Your task to perform on an android device: Add "razer thresher" to the cart on amazon.com Image 0: 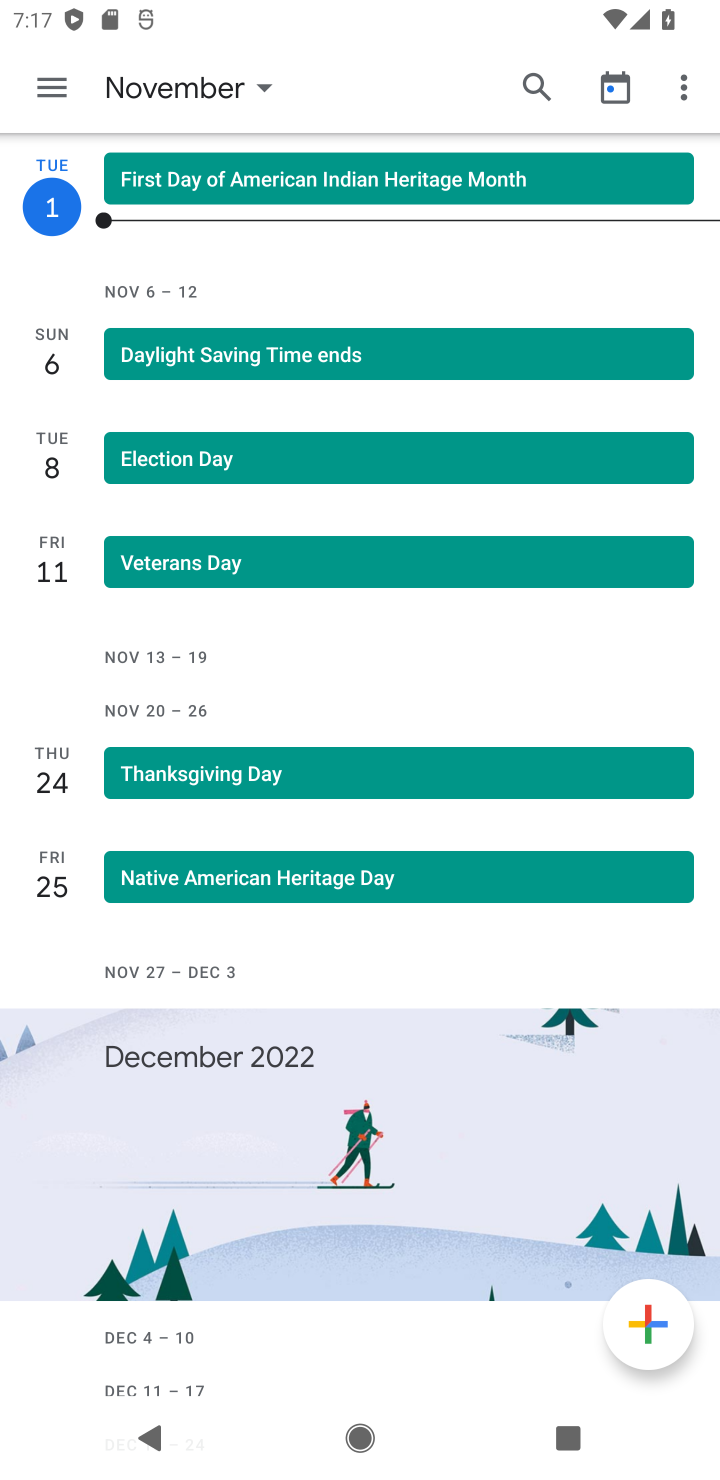
Step 0: press home button
Your task to perform on an android device: Add "razer thresher" to the cart on amazon.com Image 1: 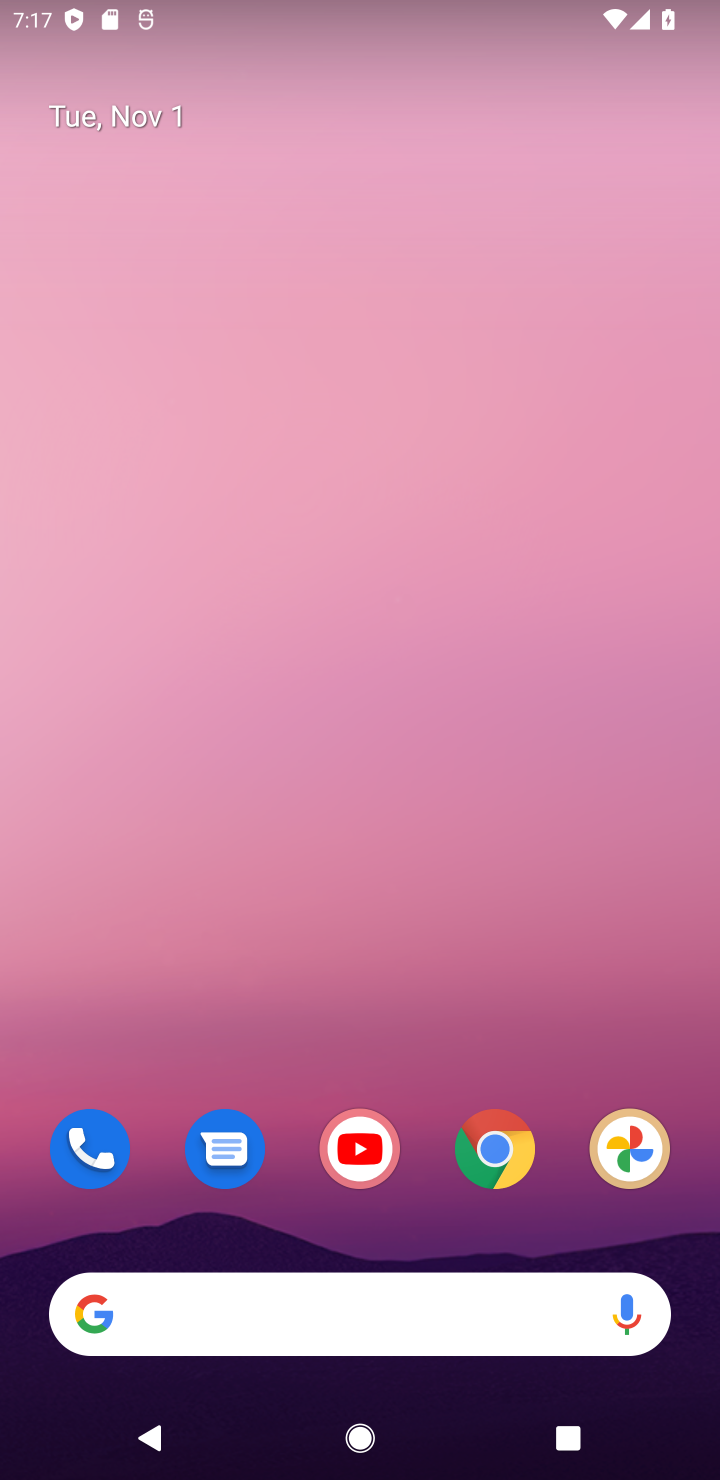
Step 1: drag from (404, 1252) to (525, 275)
Your task to perform on an android device: Add "razer thresher" to the cart on amazon.com Image 2: 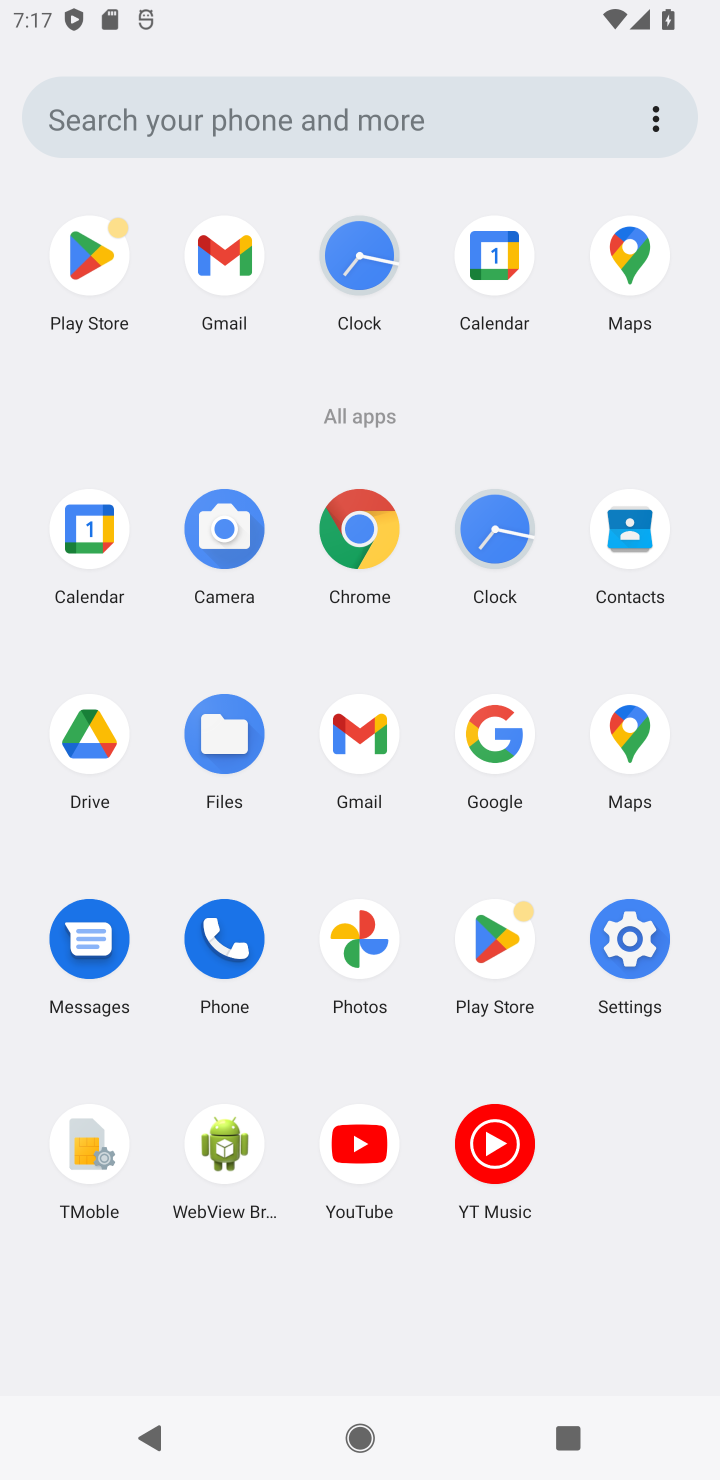
Step 2: click (354, 532)
Your task to perform on an android device: Add "razer thresher" to the cart on amazon.com Image 3: 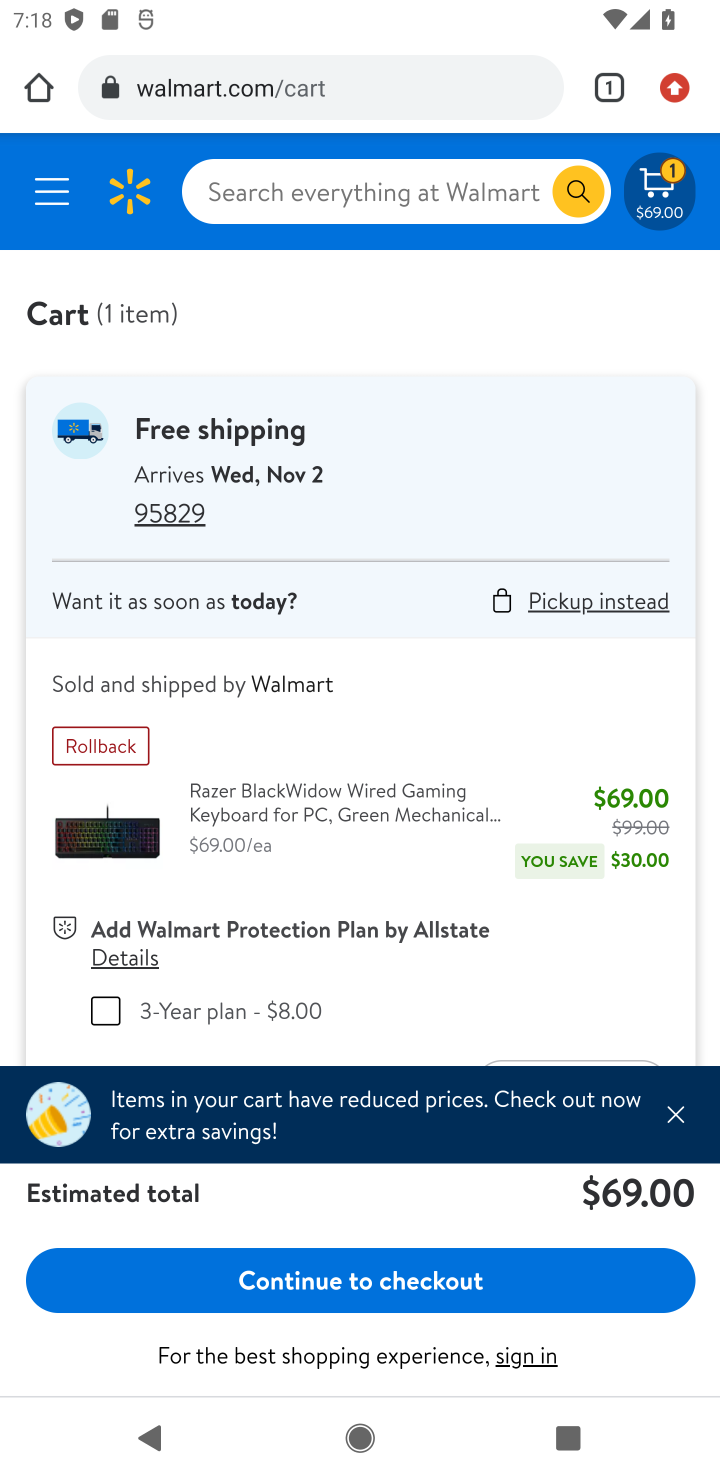
Step 3: click (504, 92)
Your task to perform on an android device: Add "razer thresher" to the cart on amazon.com Image 4: 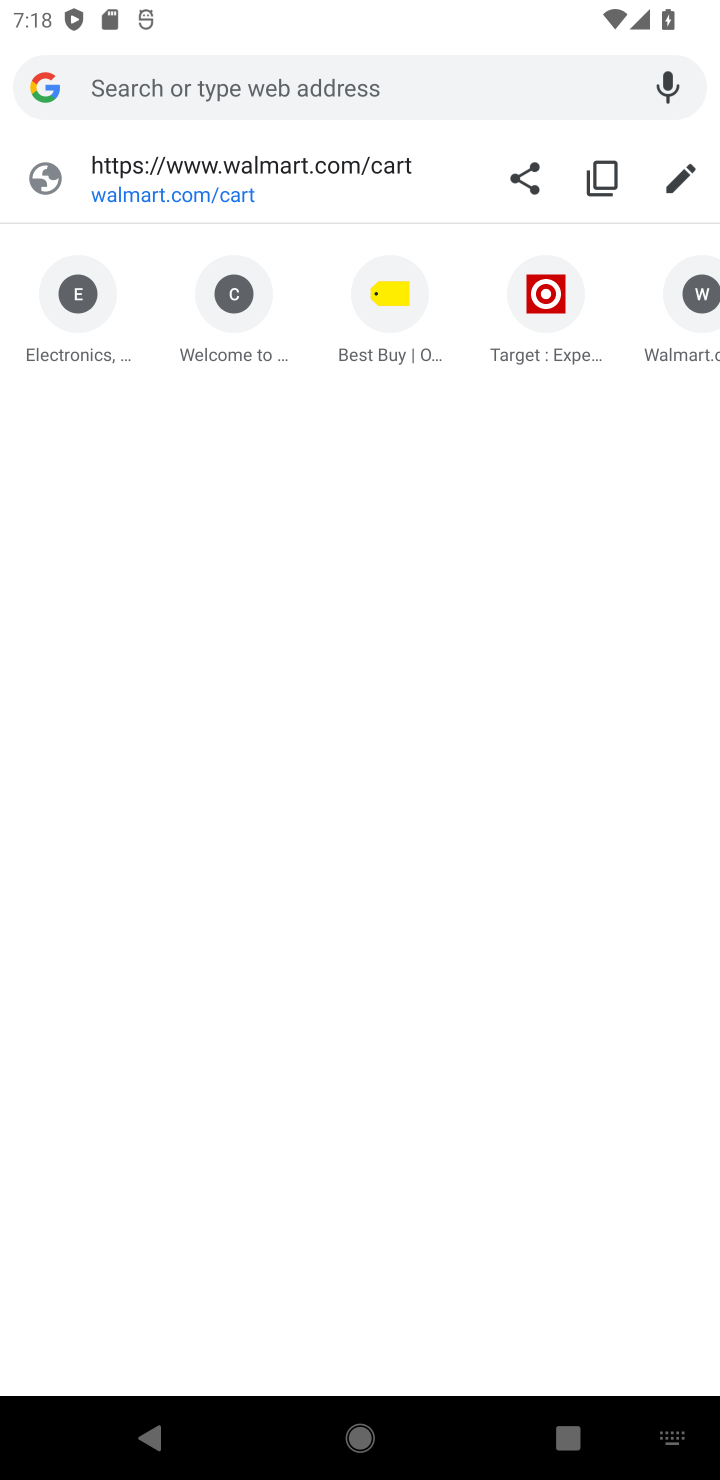
Step 4: type "amazon.com"
Your task to perform on an android device: Add "razer thresher" to the cart on amazon.com Image 5: 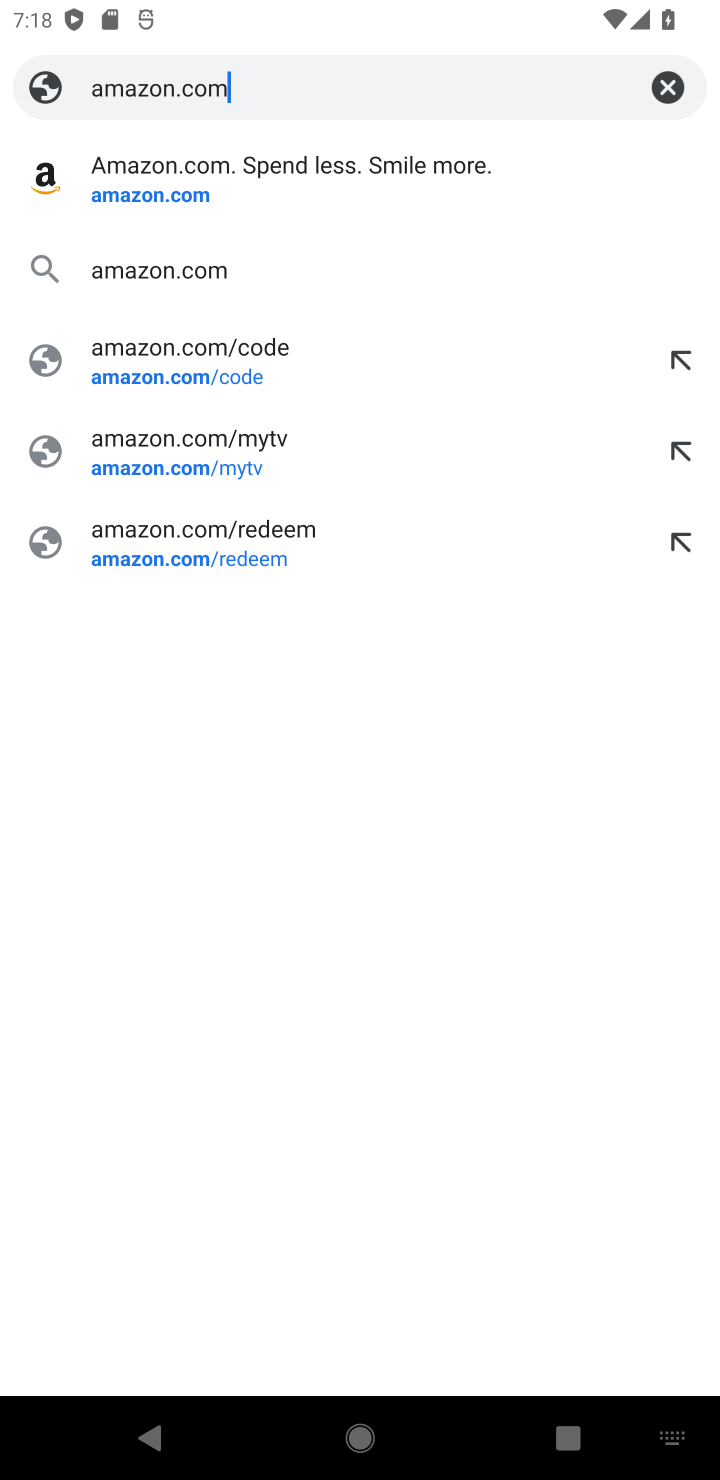
Step 5: press enter
Your task to perform on an android device: Add "razer thresher" to the cart on amazon.com Image 6: 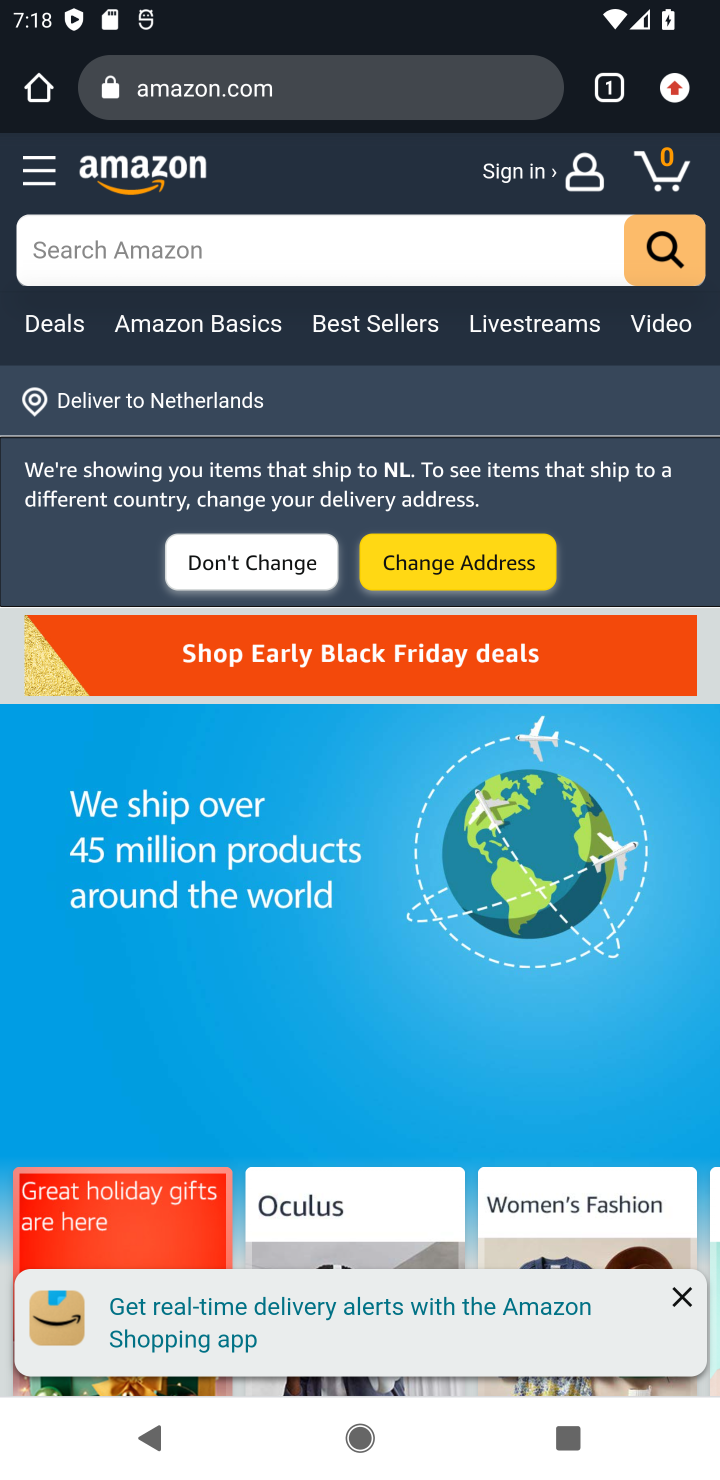
Step 6: click (223, 265)
Your task to perform on an android device: Add "razer thresher" to the cart on amazon.com Image 7: 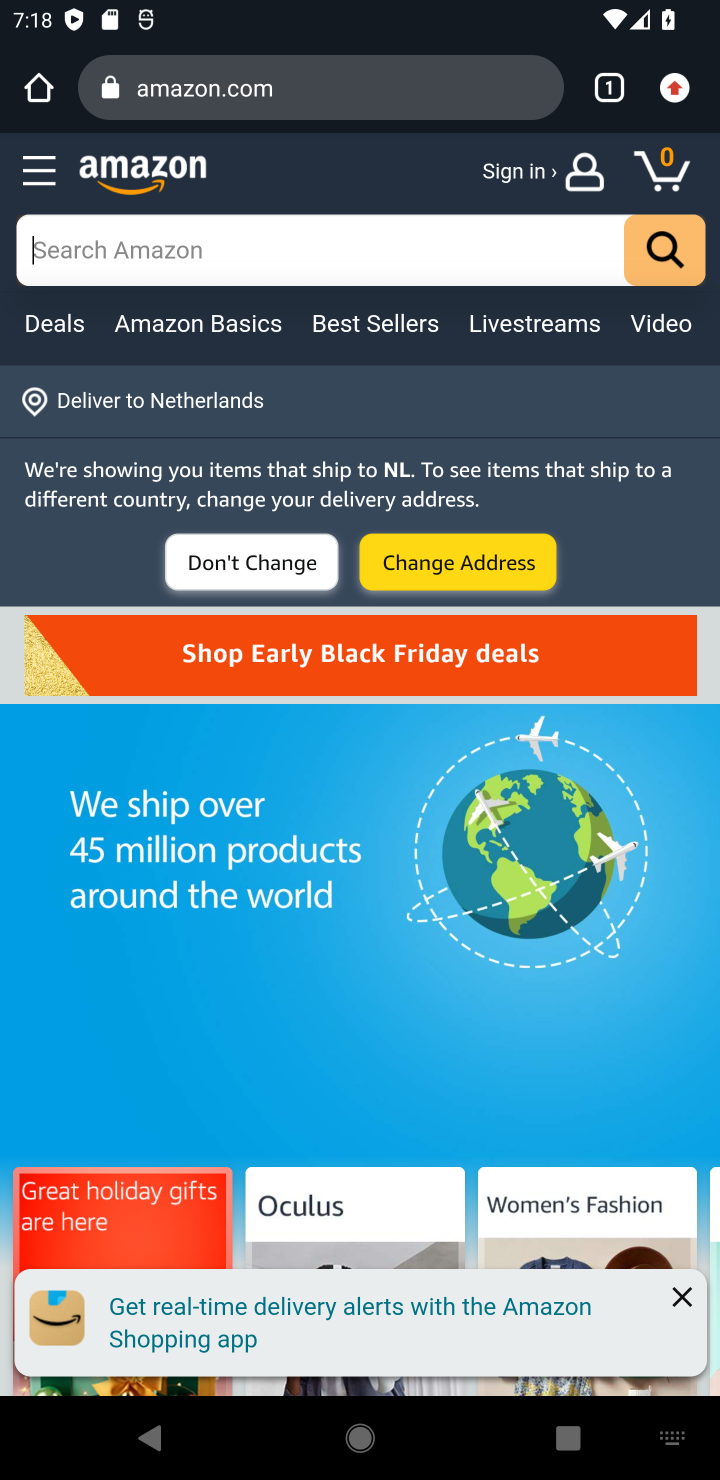
Step 7: type "razer thresher"
Your task to perform on an android device: Add "razer thresher" to the cart on amazon.com Image 8: 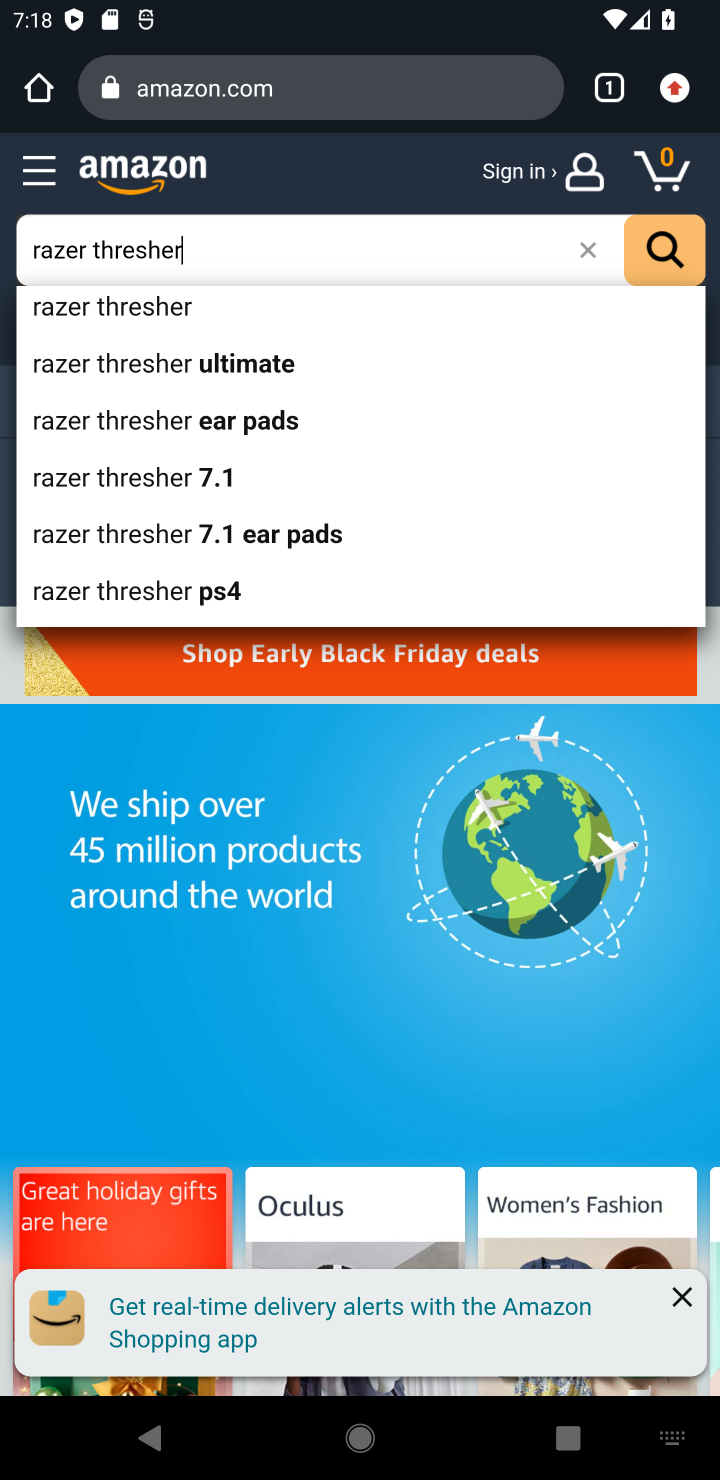
Step 8: press enter
Your task to perform on an android device: Add "razer thresher" to the cart on amazon.com Image 9: 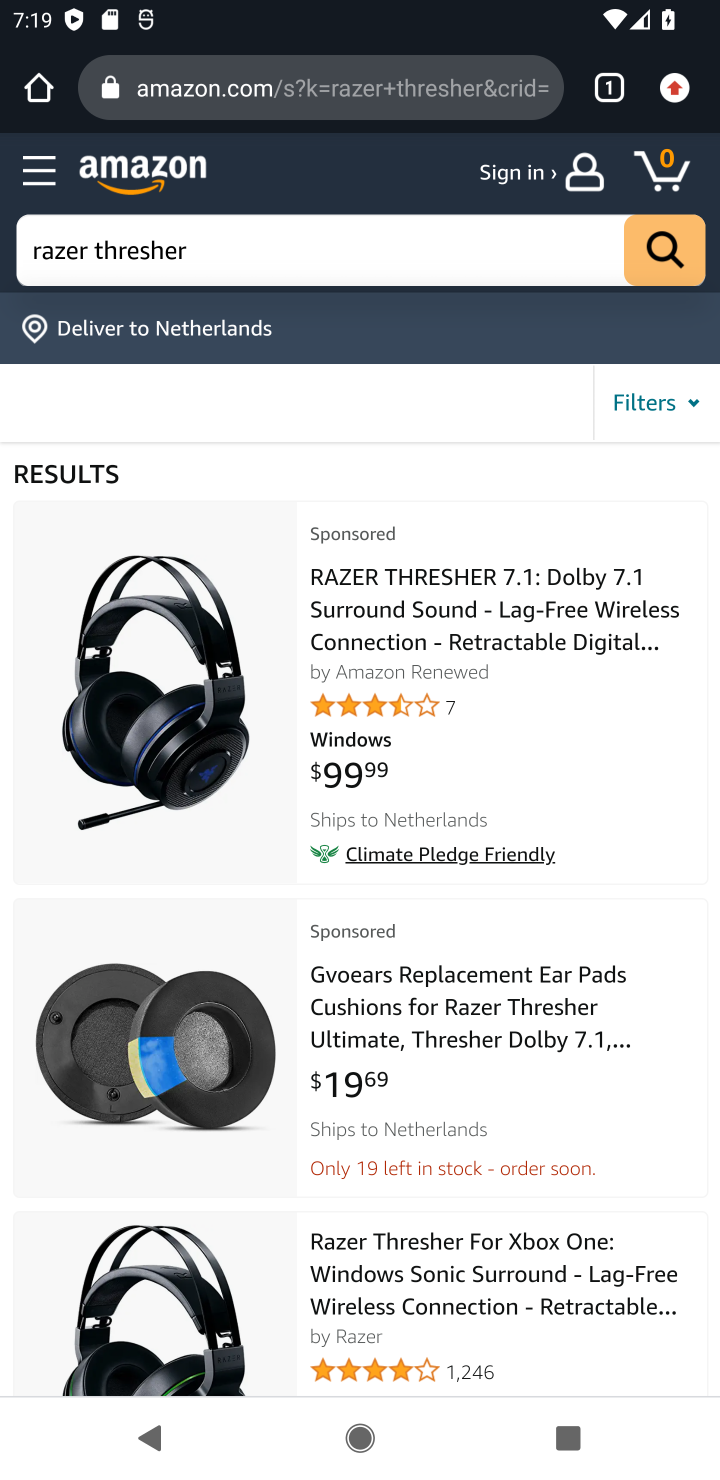
Step 9: drag from (450, 1128) to (474, 683)
Your task to perform on an android device: Add "razer thresher" to the cart on amazon.com Image 10: 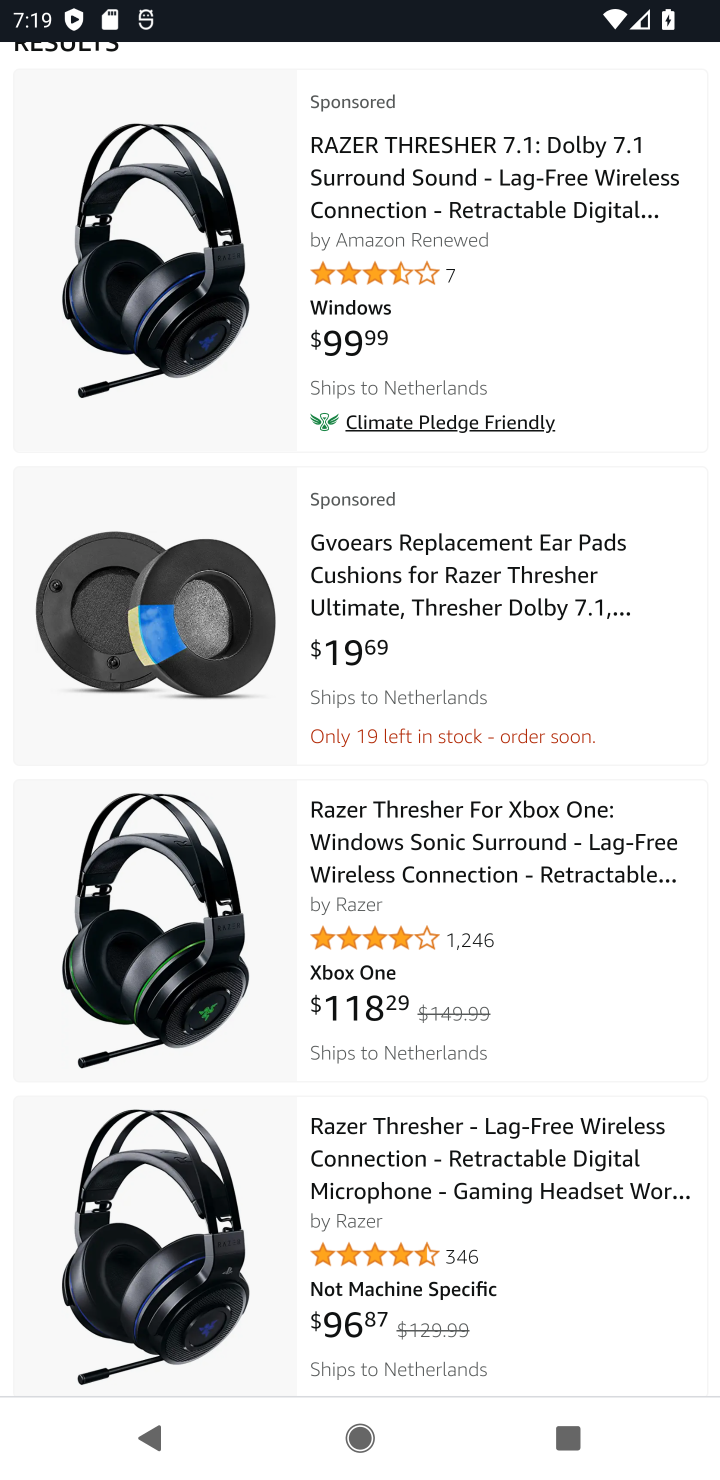
Step 10: click (443, 855)
Your task to perform on an android device: Add "razer thresher" to the cart on amazon.com Image 11: 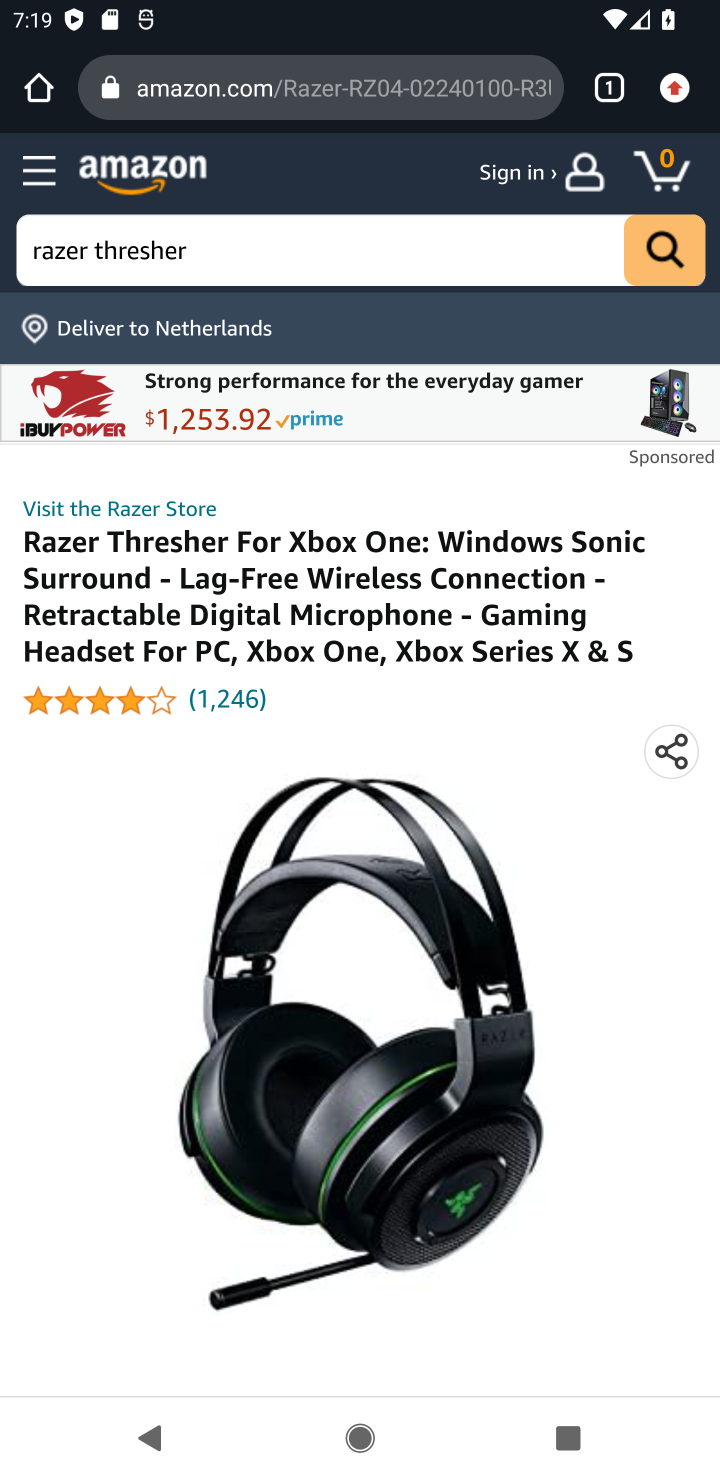
Step 11: drag from (480, 941) to (410, 256)
Your task to perform on an android device: Add "razer thresher" to the cart on amazon.com Image 12: 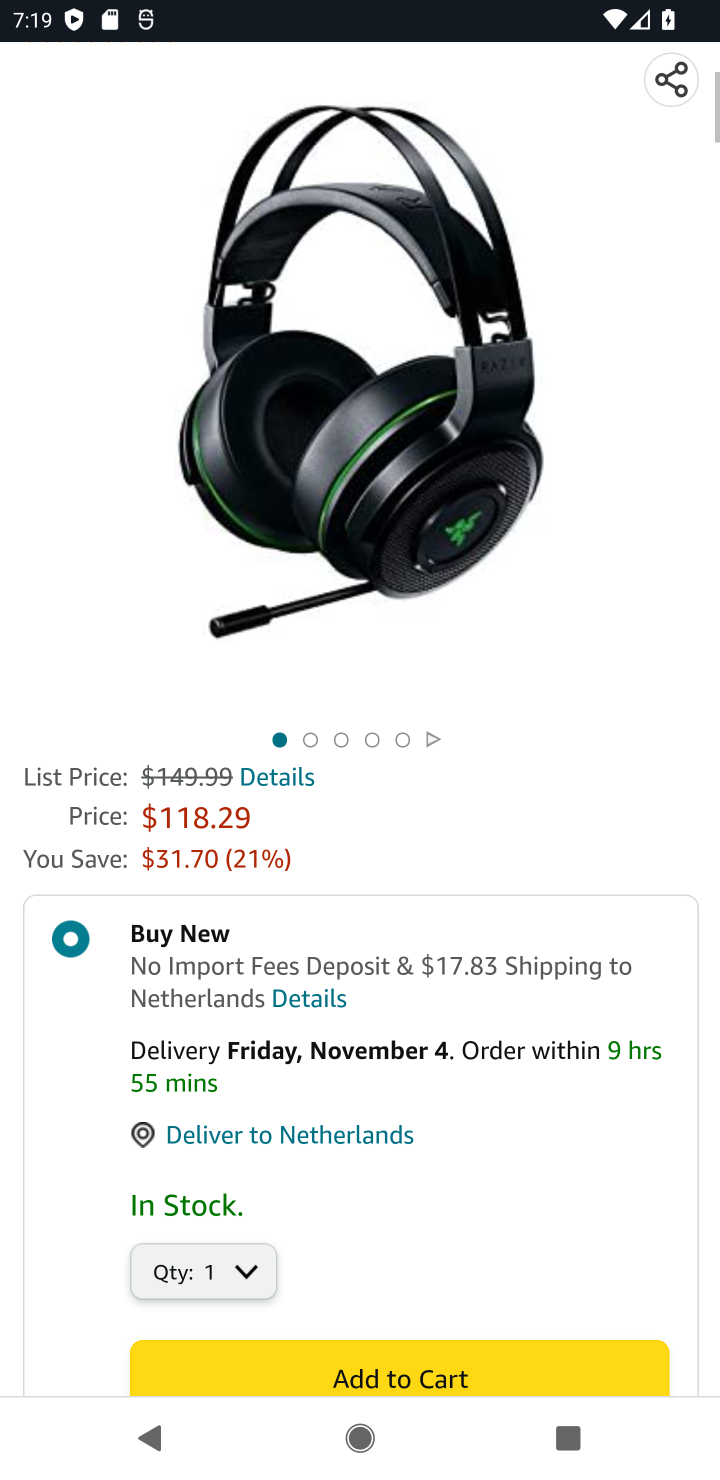
Step 12: drag from (411, 965) to (421, 569)
Your task to perform on an android device: Add "razer thresher" to the cart on amazon.com Image 13: 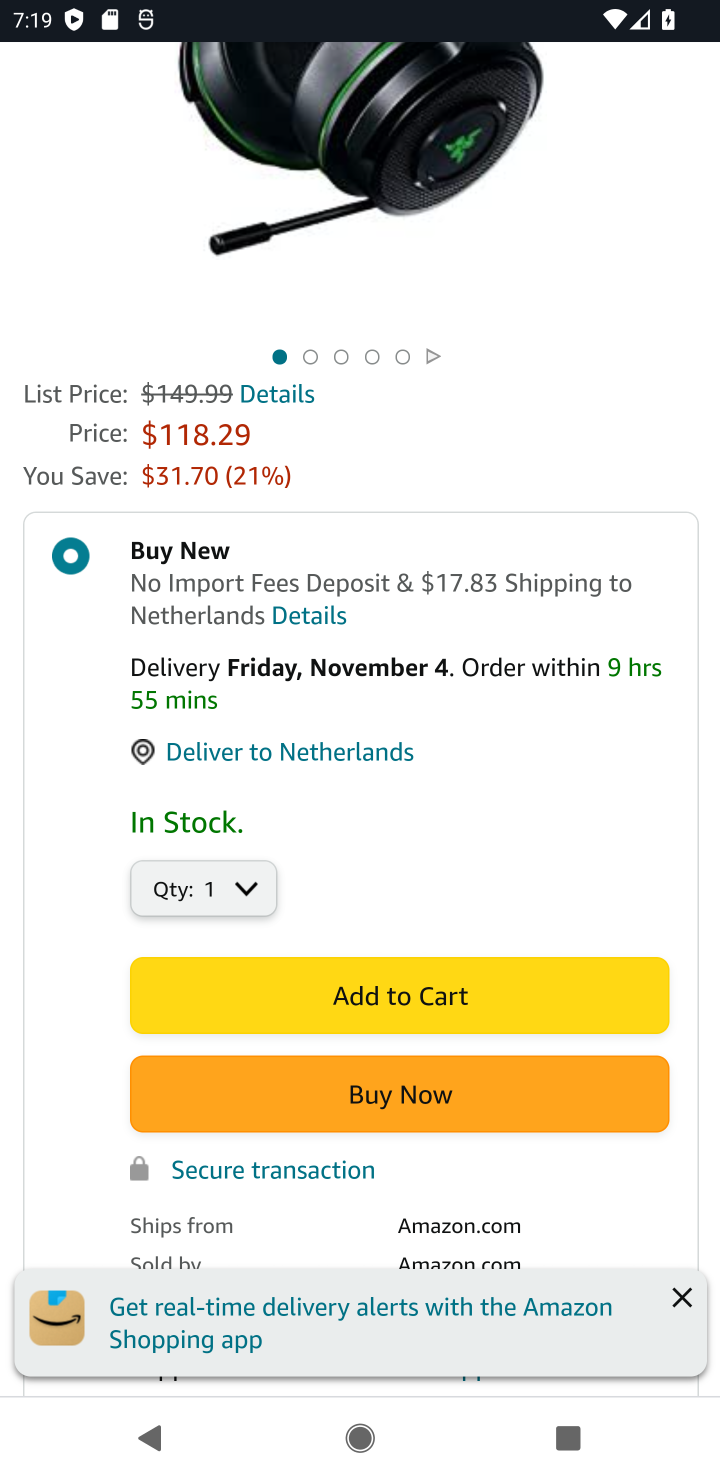
Step 13: click (424, 987)
Your task to perform on an android device: Add "razer thresher" to the cart on amazon.com Image 14: 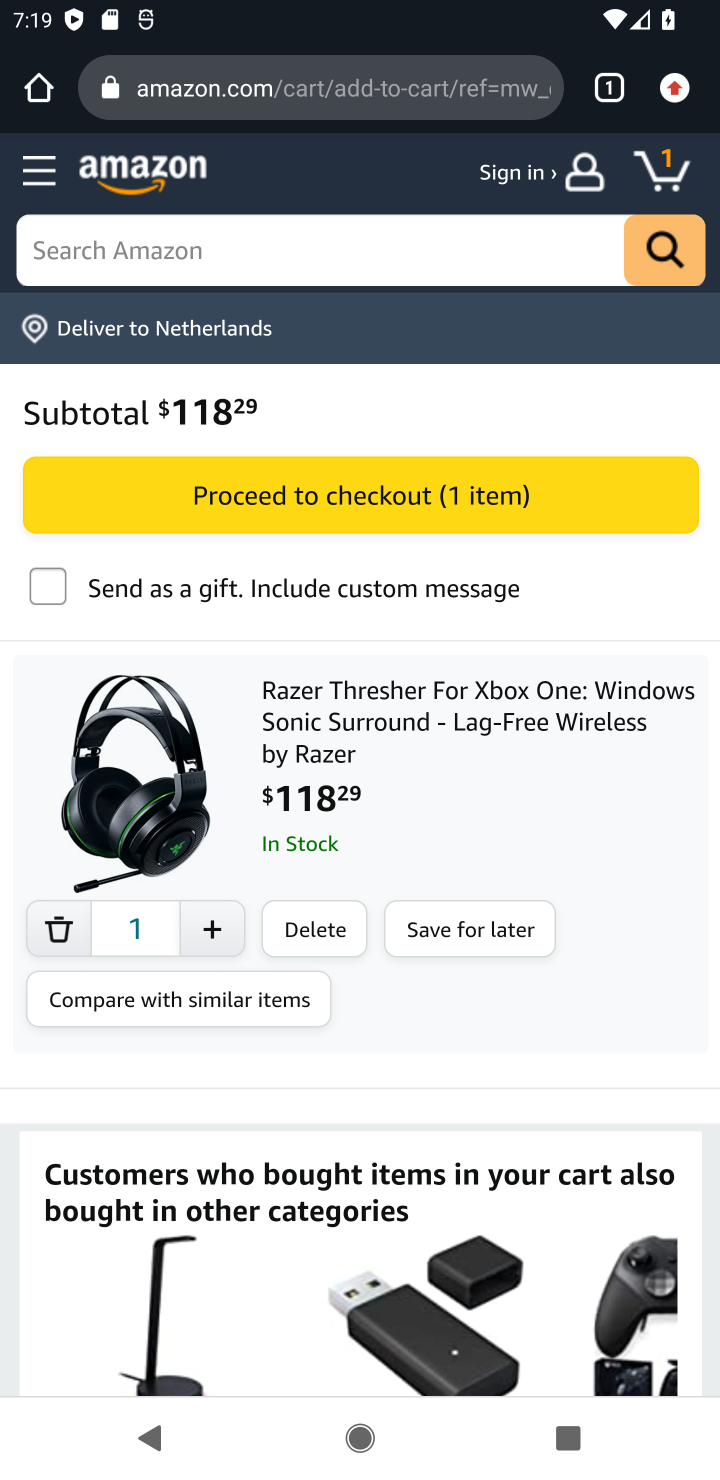
Step 14: task complete